Your task to perform on an android device: change the clock display to analog Image 0: 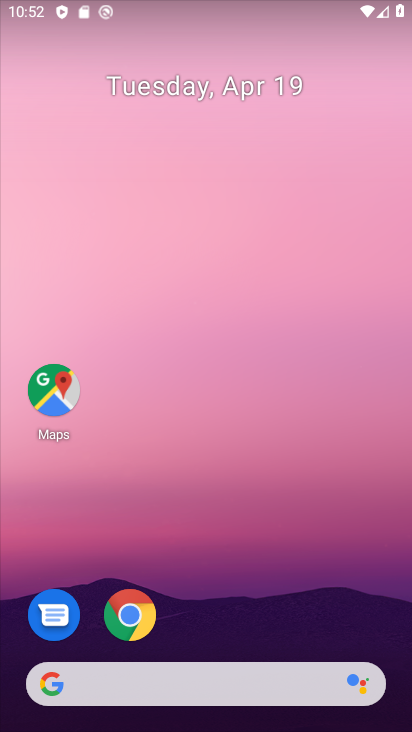
Step 0: drag from (222, 651) to (241, 251)
Your task to perform on an android device: change the clock display to analog Image 1: 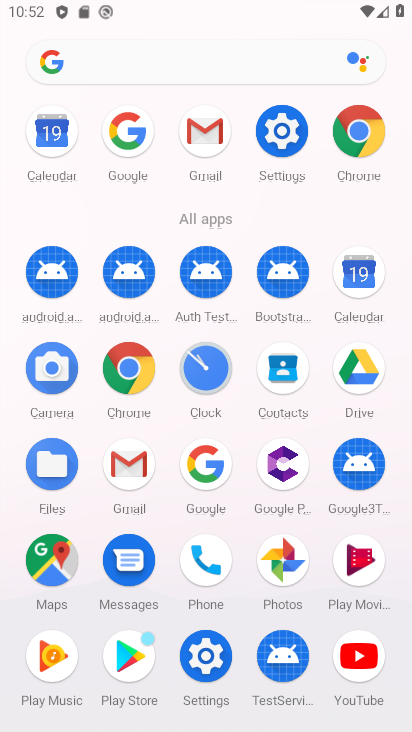
Step 1: click (193, 372)
Your task to perform on an android device: change the clock display to analog Image 2: 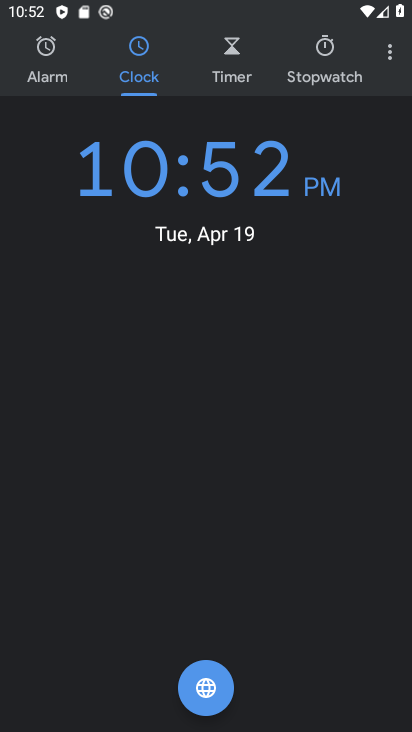
Step 2: click (392, 52)
Your task to perform on an android device: change the clock display to analog Image 3: 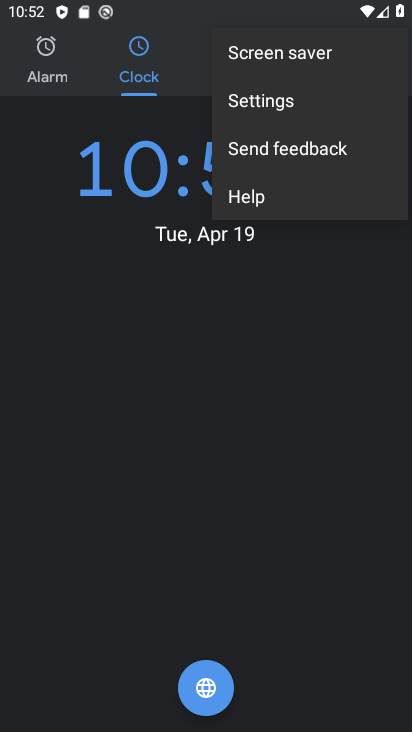
Step 3: click (285, 102)
Your task to perform on an android device: change the clock display to analog Image 4: 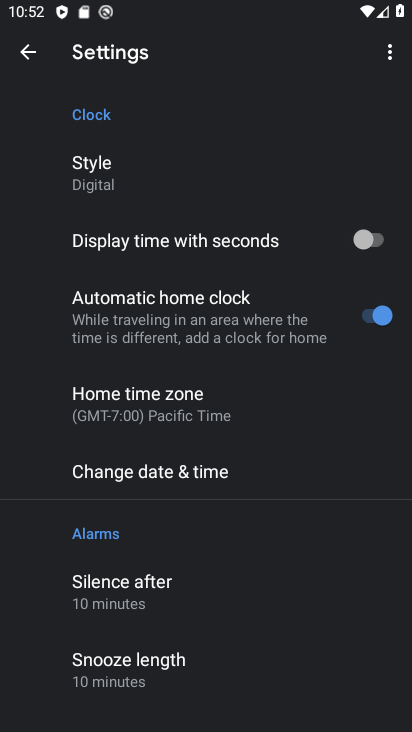
Step 4: click (106, 182)
Your task to perform on an android device: change the clock display to analog Image 5: 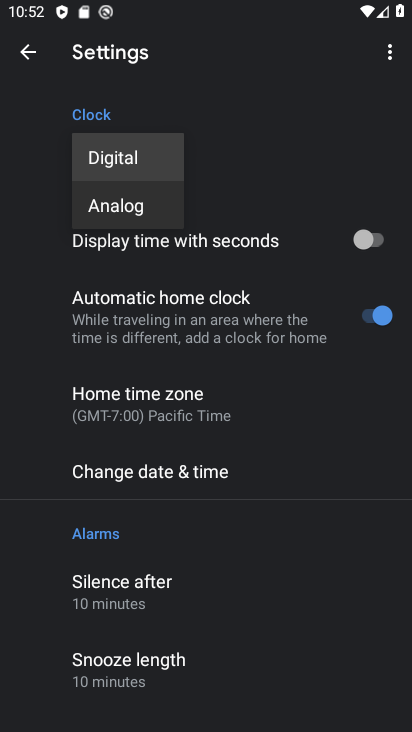
Step 5: click (118, 195)
Your task to perform on an android device: change the clock display to analog Image 6: 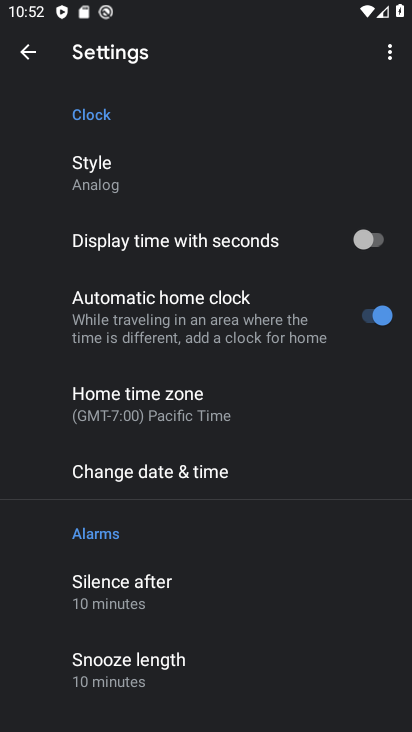
Step 6: task complete